Your task to perform on an android device: Open location settings Image 0: 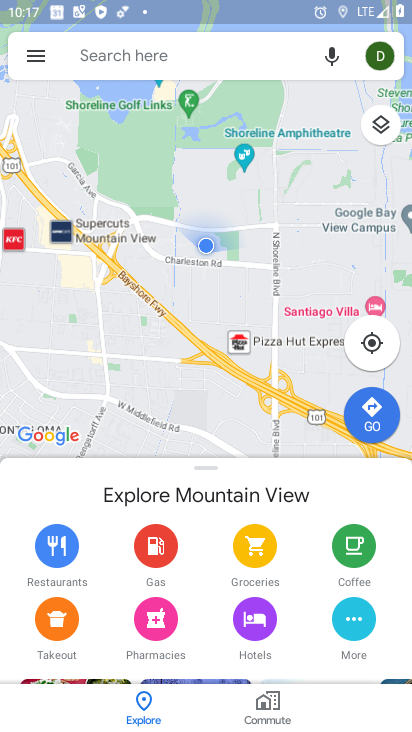
Step 0: task complete